Your task to perform on an android device: Open Google Chrome Image 0: 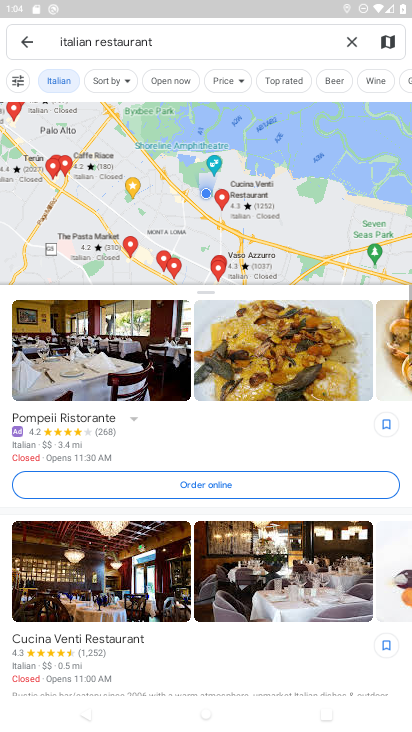
Step 0: click (47, 473)
Your task to perform on an android device: Open Google Chrome Image 1: 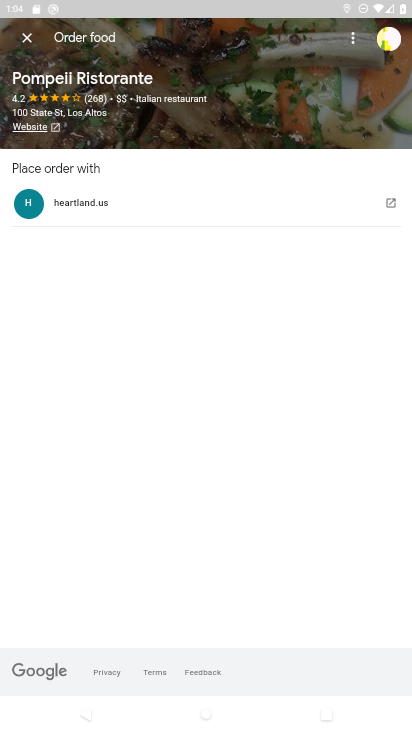
Step 1: press home button
Your task to perform on an android device: Open Google Chrome Image 2: 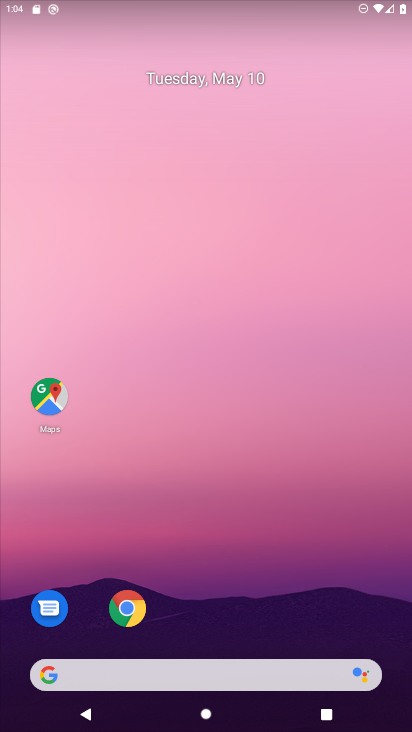
Step 2: drag from (313, 588) to (287, 194)
Your task to perform on an android device: Open Google Chrome Image 3: 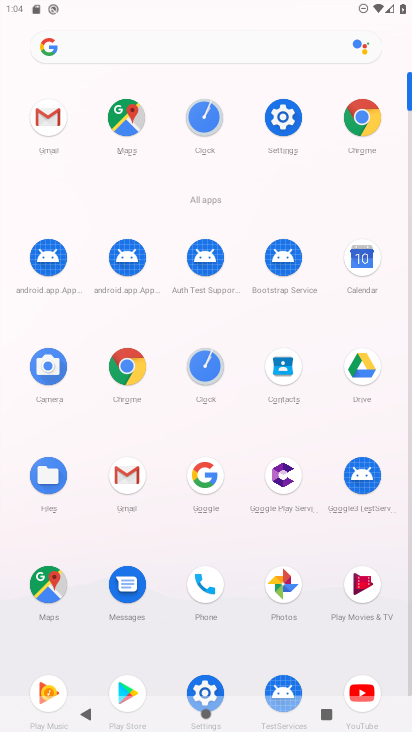
Step 3: click (129, 386)
Your task to perform on an android device: Open Google Chrome Image 4: 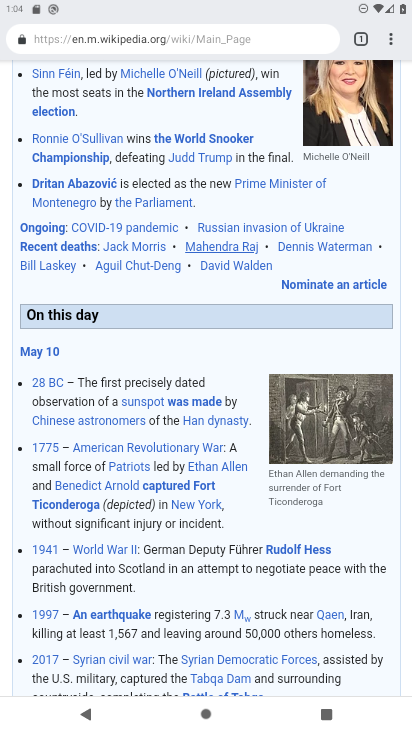
Step 4: task complete